Your task to perform on an android device: Open Reddit.com Image 0: 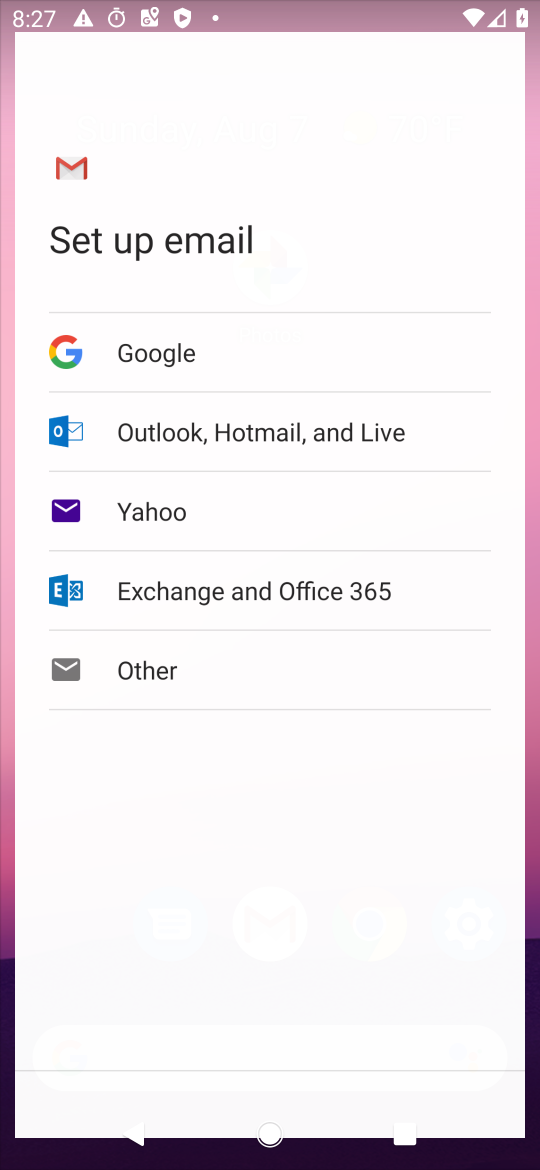
Step 0: press home button
Your task to perform on an android device: Open Reddit.com Image 1: 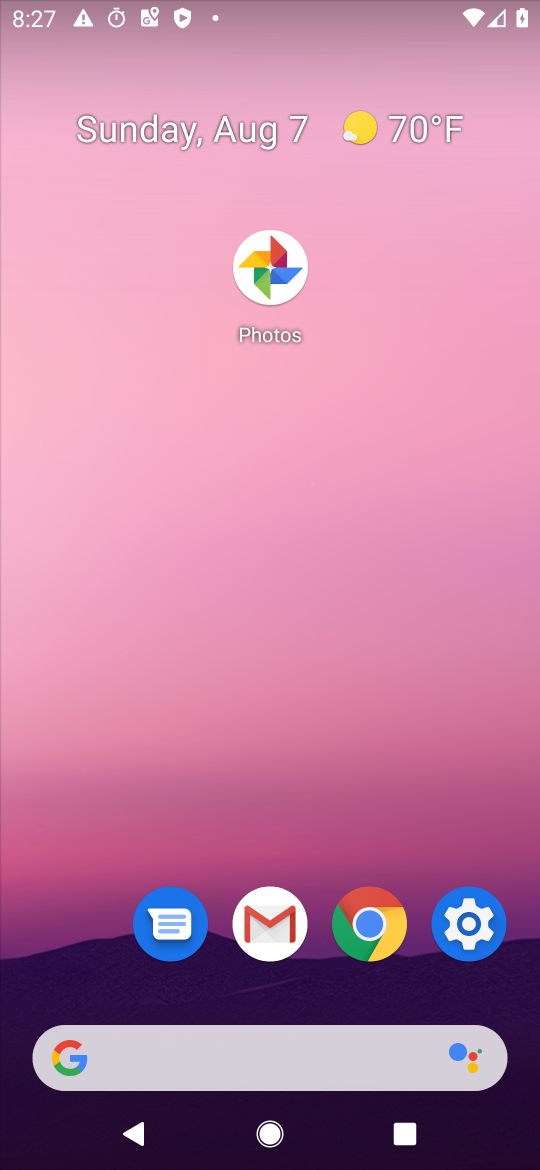
Step 1: click (359, 931)
Your task to perform on an android device: Open Reddit.com Image 2: 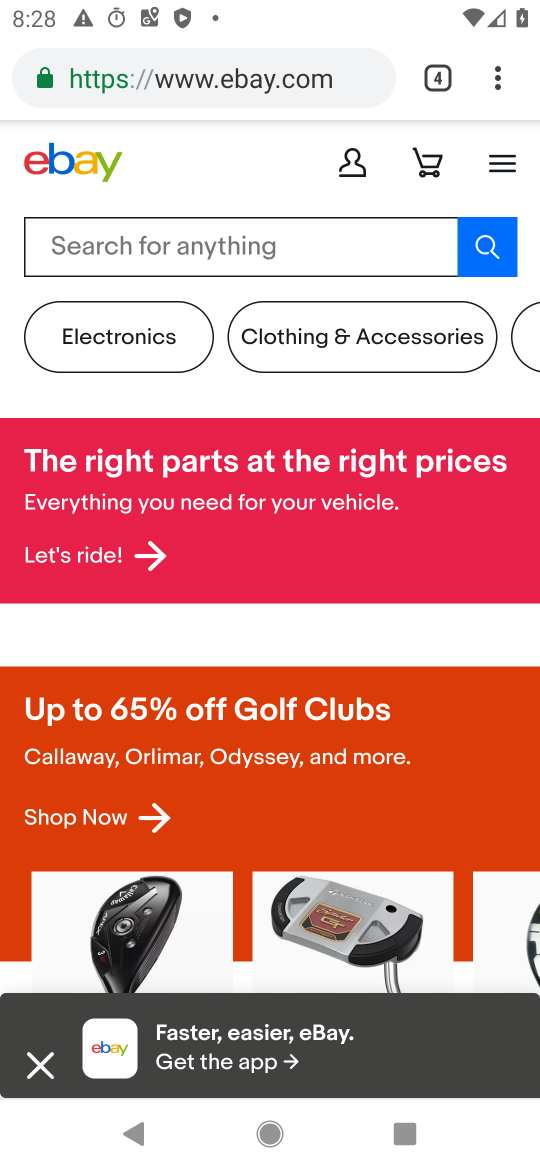
Step 2: click (270, 94)
Your task to perform on an android device: Open Reddit.com Image 3: 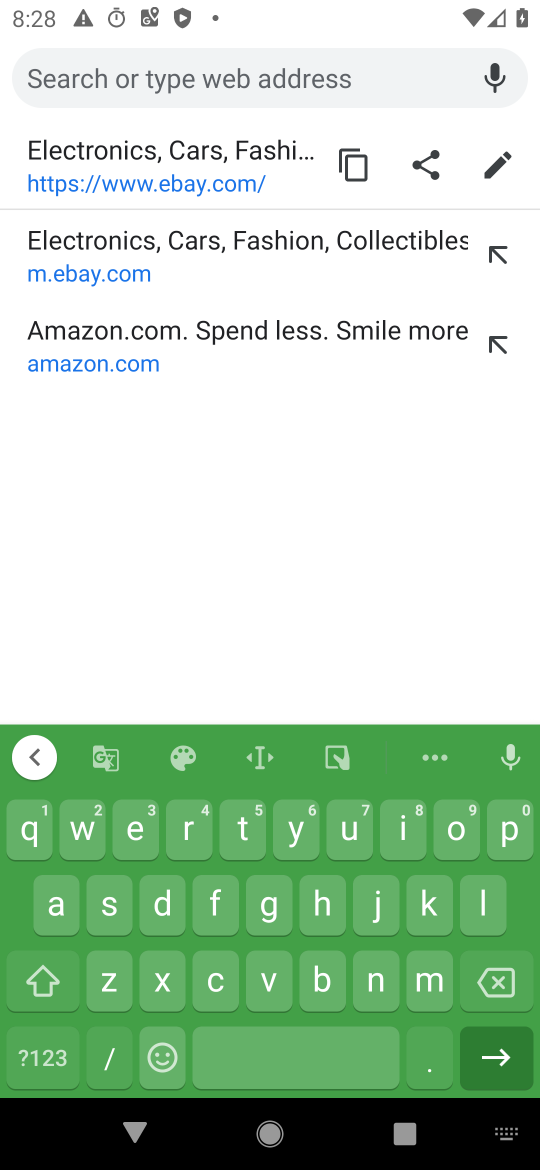
Step 3: click (187, 811)
Your task to perform on an android device: Open Reddit.com Image 4: 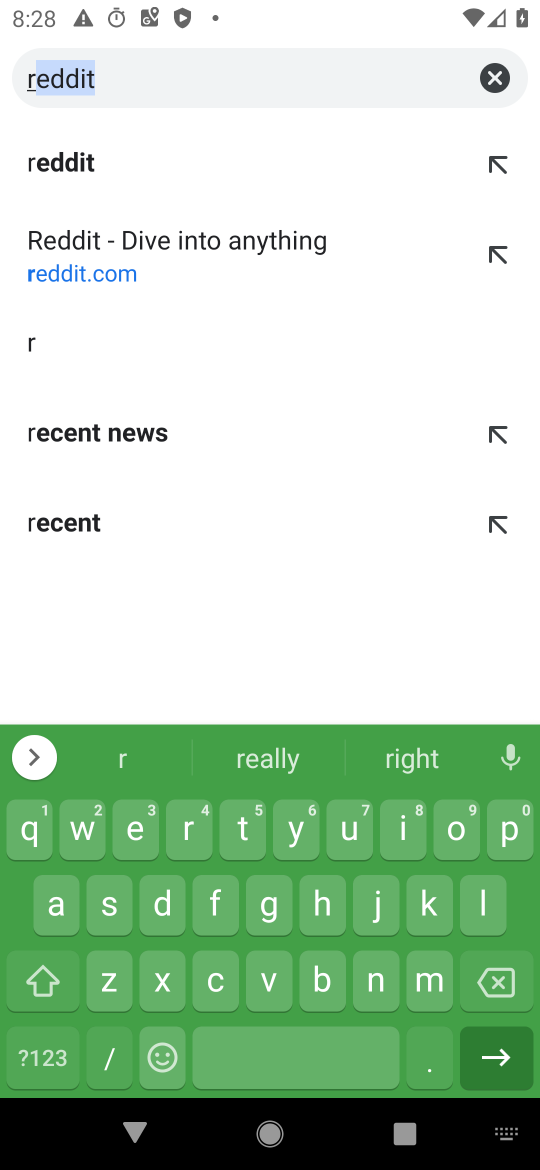
Step 4: click (133, 829)
Your task to perform on an android device: Open Reddit.com Image 5: 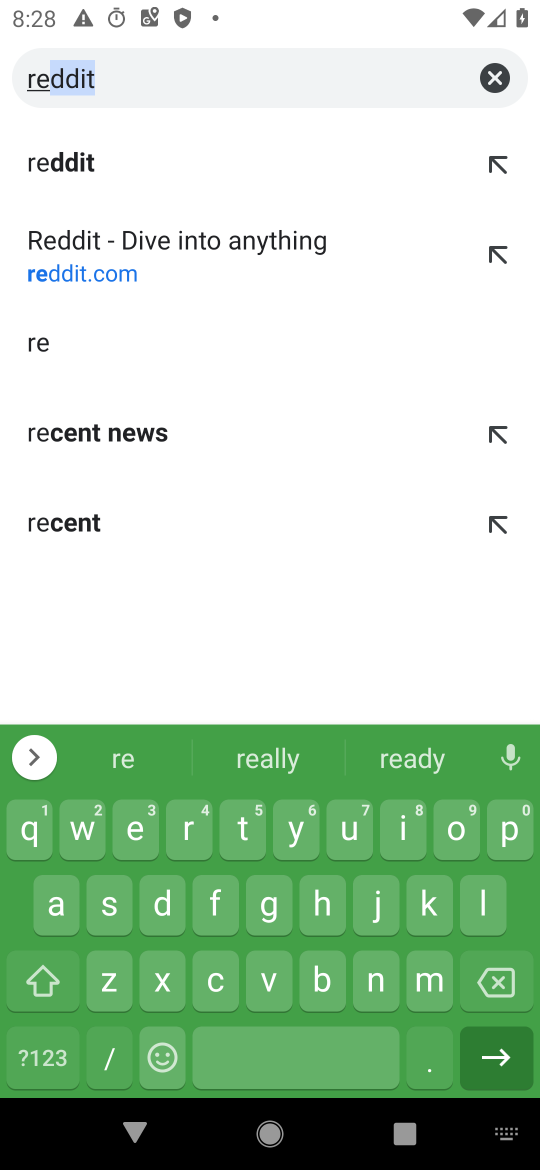
Step 5: click (105, 159)
Your task to perform on an android device: Open Reddit.com Image 6: 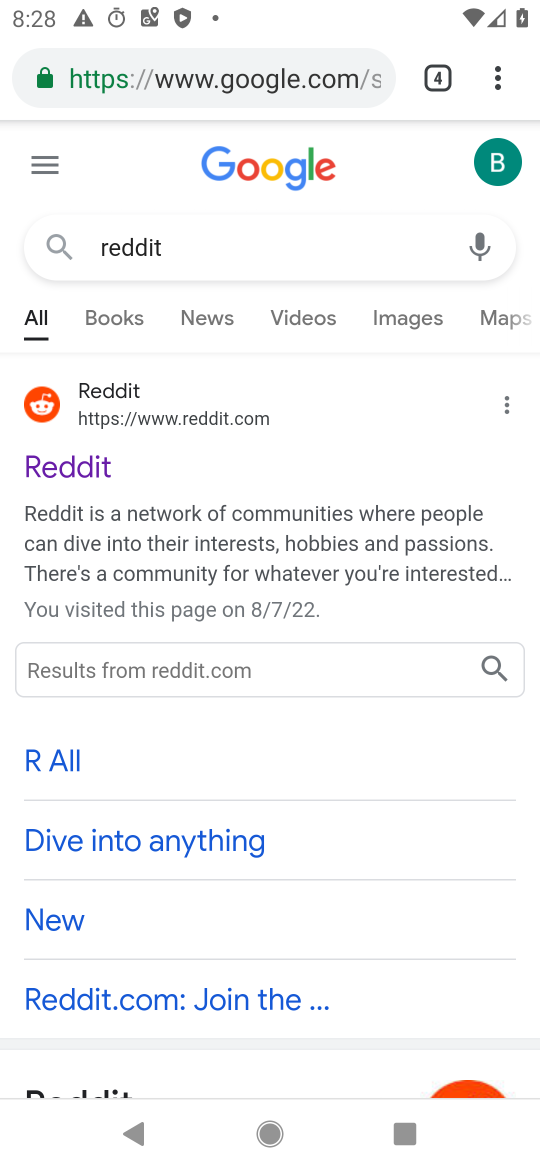
Step 6: click (70, 465)
Your task to perform on an android device: Open Reddit.com Image 7: 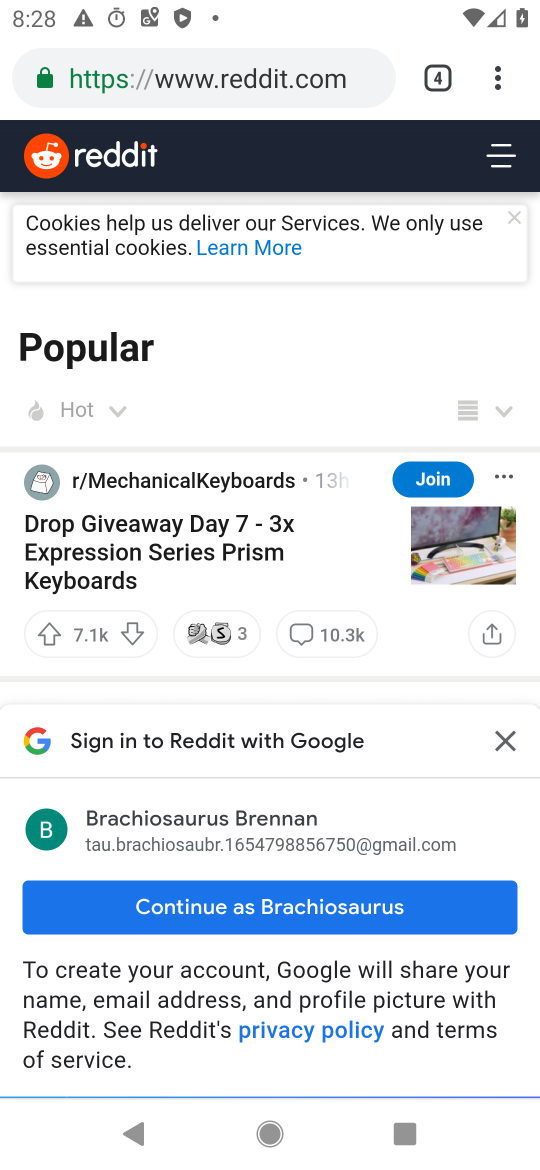
Step 7: click (493, 748)
Your task to perform on an android device: Open Reddit.com Image 8: 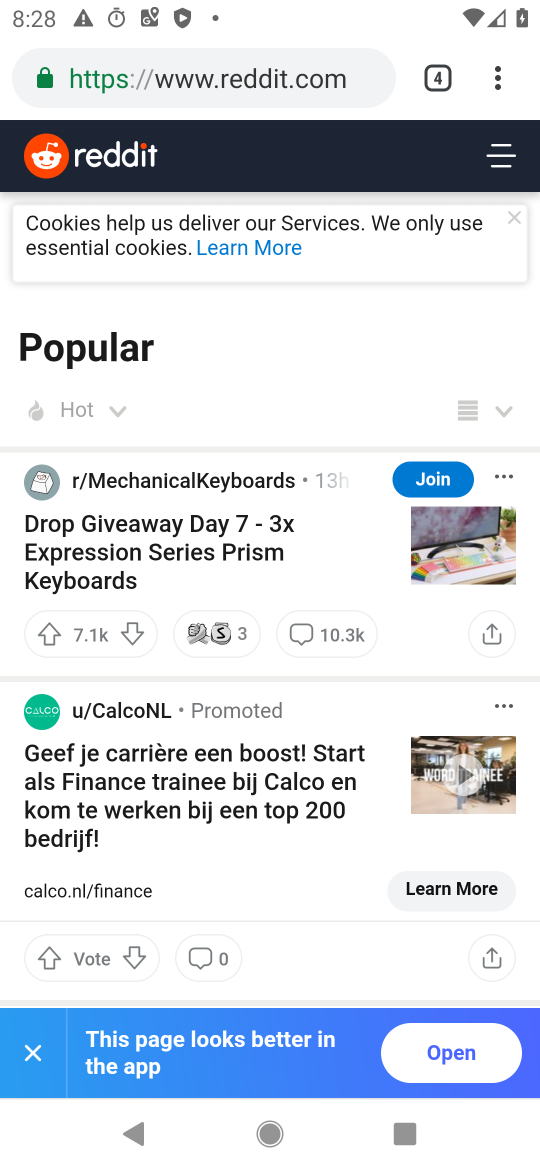
Step 8: task complete